Your task to perform on an android device: Go to wifi settings Image 0: 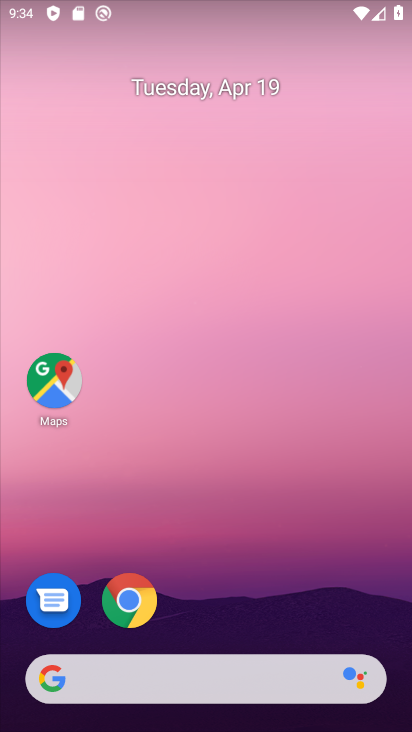
Step 0: drag from (292, 563) to (212, 52)
Your task to perform on an android device: Go to wifi settings Image 1: 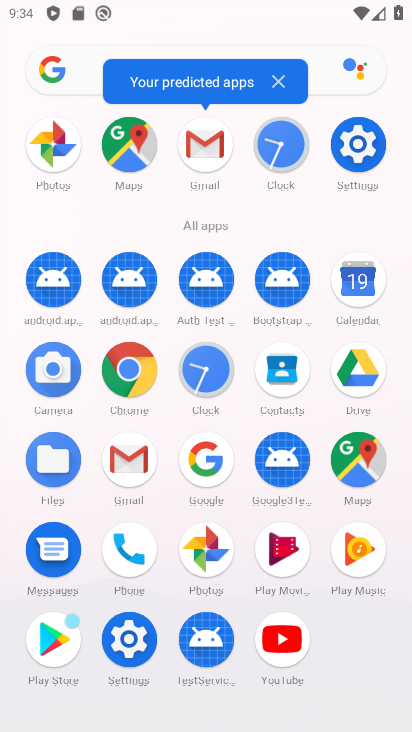
Step 1: click (356, 153)
Your task to perform on an android device: Go to wifi settings Image 2: 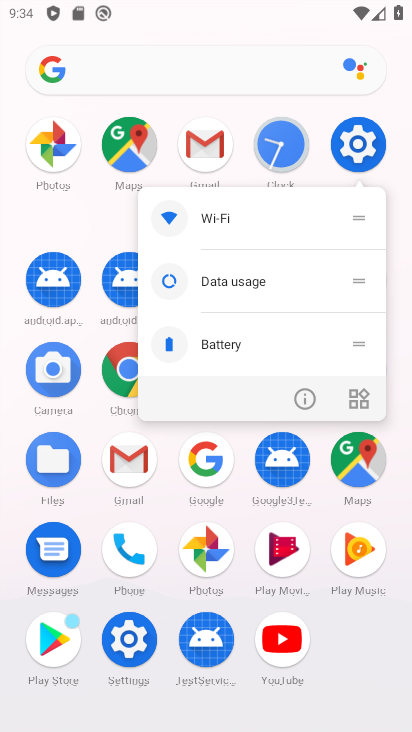
Step 2: click (357, 153)
Your task to perform on an android device: Go to wifi settings Image 3: 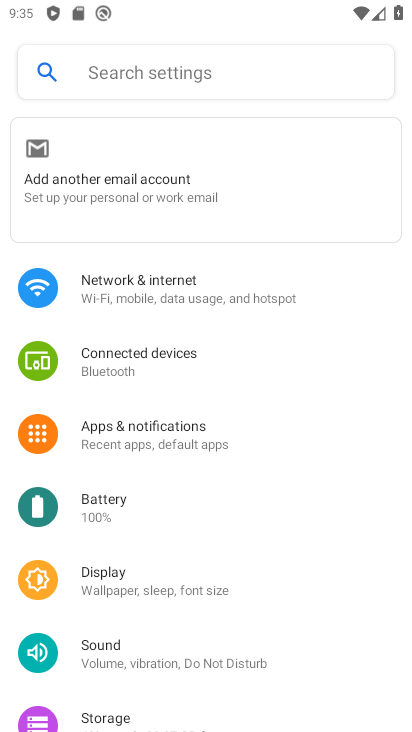
Step 3: click (136, 289)
Your task to perform on an android device: Go to wifi settings Image 4: 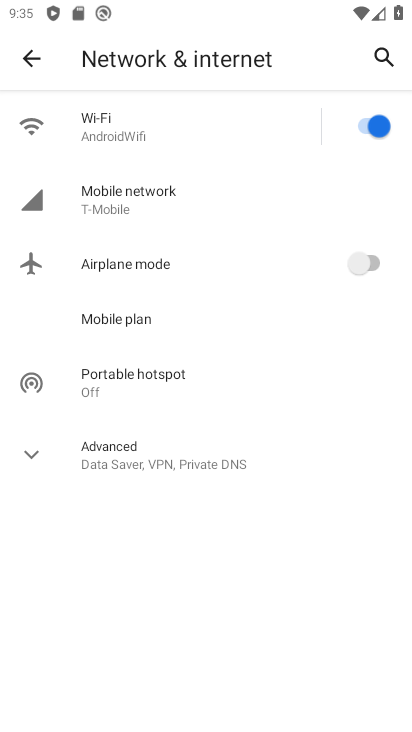
Step 4: click (217, 136)
Your task to perform on an android device: Go to wifi settings Image 5: 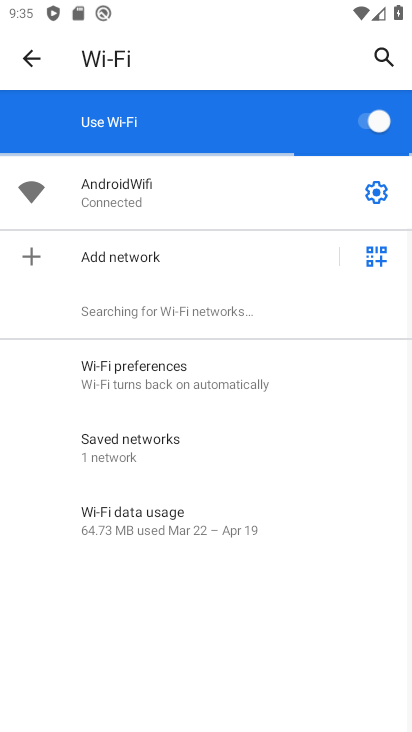
Step 5: task complete